Your task to perform on an android device: Open the calendar and show me this week's events Image 0: 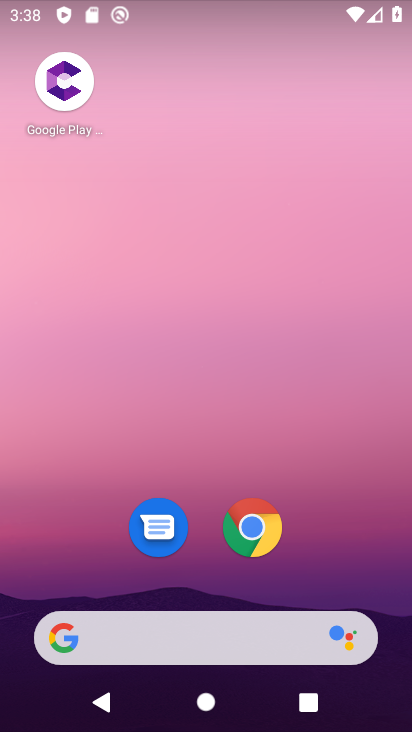
Step 0: drag from (239, 586) to (183, 5)
Your task to perform on an android device: Open the calendar and show me this week's events Image 1: 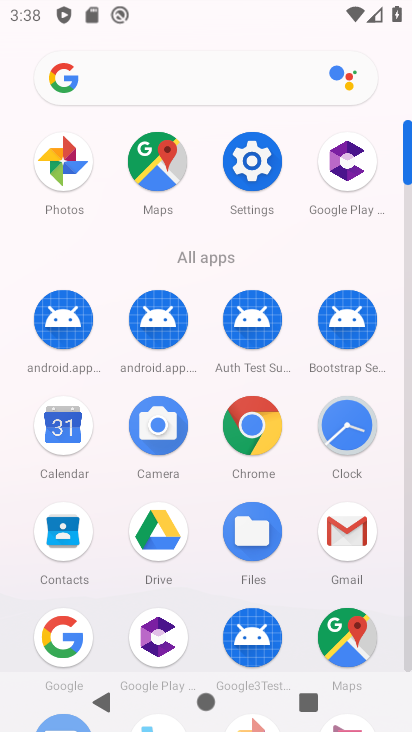
Step 1: click (60, 444)
Your task to perform on an android device: Open the calendar and show me this week's events Image 2: 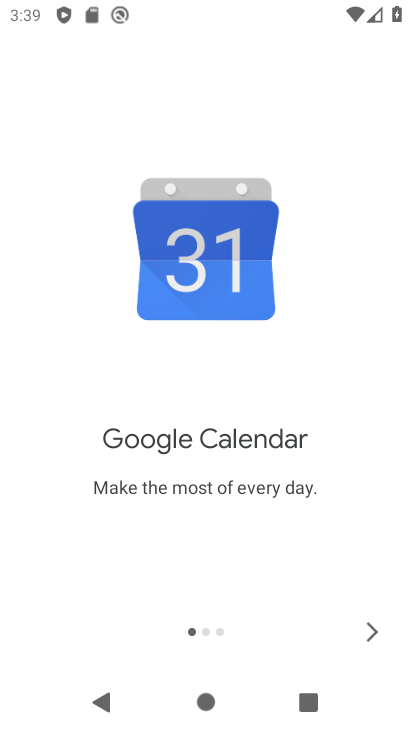
Step 2: click (375, 631)
Your task to perform on an android device: Open the calendar and show me this week's events Image 3: 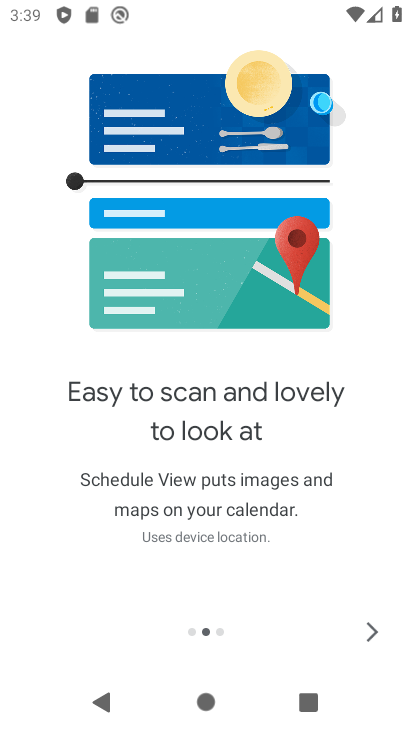
Step 3: click (375, 631)
Your task to perform on an android device: Open the calendar and show me this week's events Image 4: 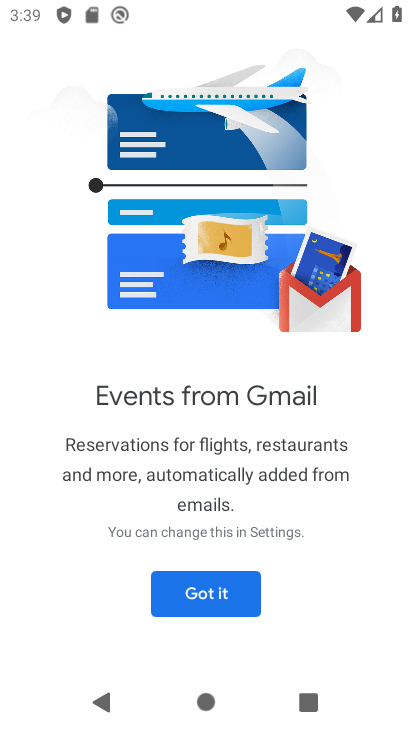
Step 4: click (249, 603)
Your task to perform on an android device: Open the calendar and show me this week's events Image 5: 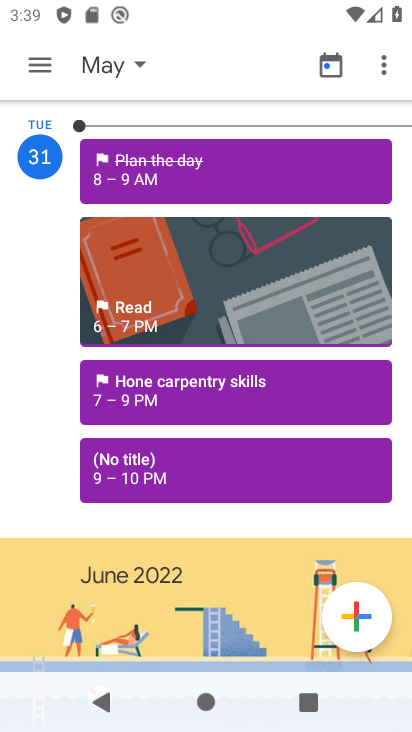
Step 5: click (29, 47)
Your task to perform on an android device: Open the calendar and show me this week's events Image 6: 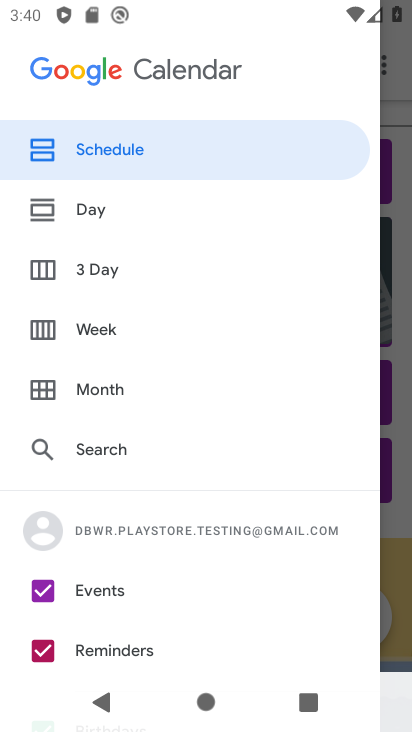
Step 6: click (109, 327)
Your task to perform on an android device: Open the calendar and show me this week's events Image 7: 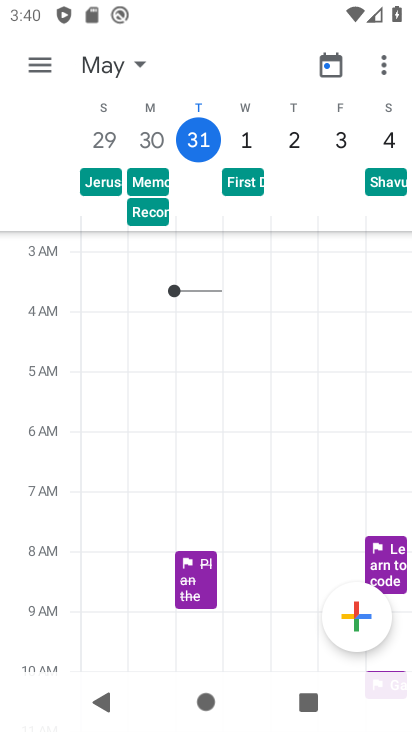
Step 7: task complete